Your task to perform on an android device: Open the calculator app Image 0: 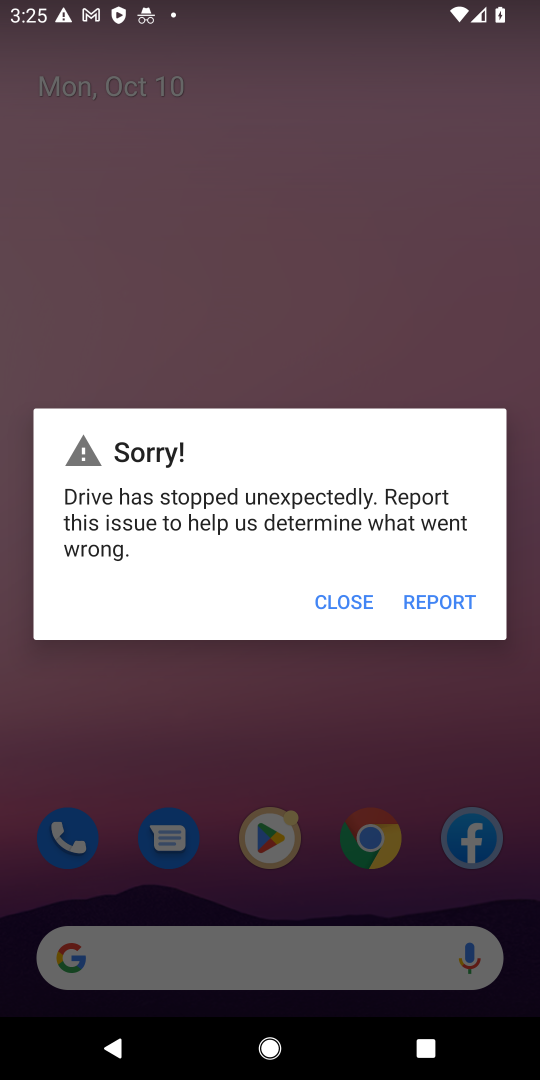
Step 0: click (348, 605)
Your task to perform on an android device: Open the calculator app Image 1: 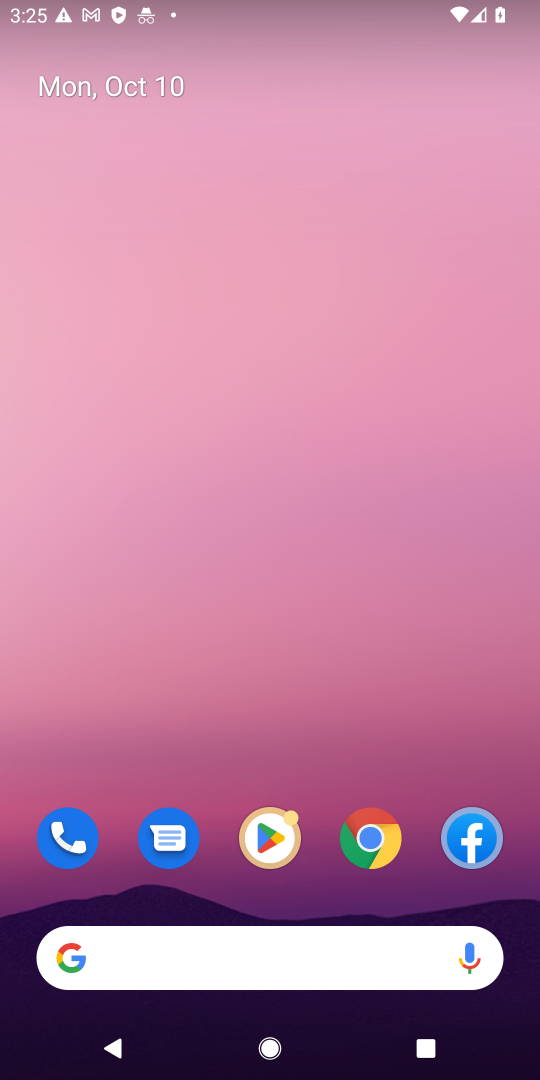
Step 1: drag from (227, 910) to (163, 25)
Your task to perform on an android device: Open the calculator app Image 2: 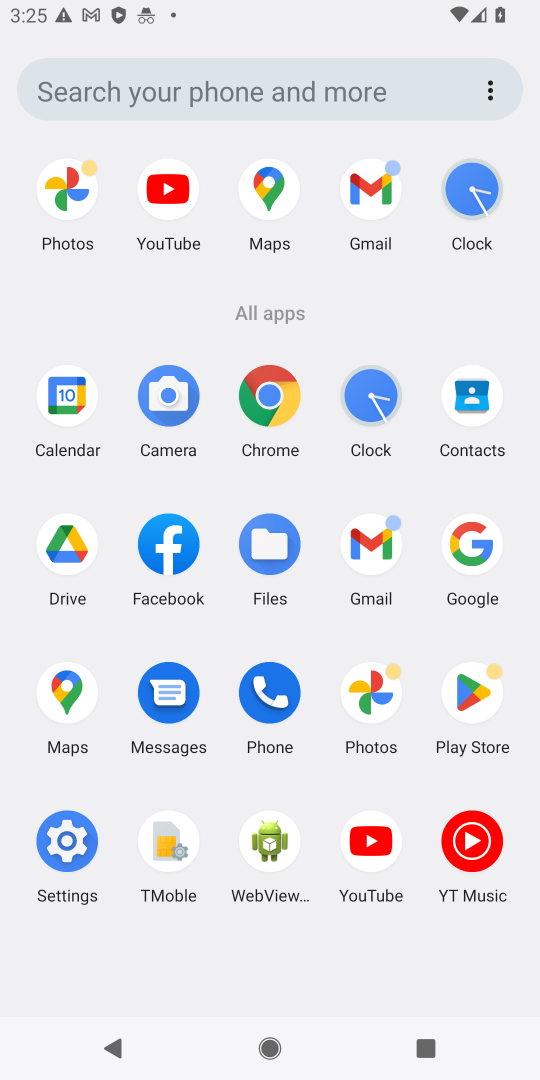
Step 2: click (470, 714)
Your task to perform on an android device: Open the calculator app Image 3: 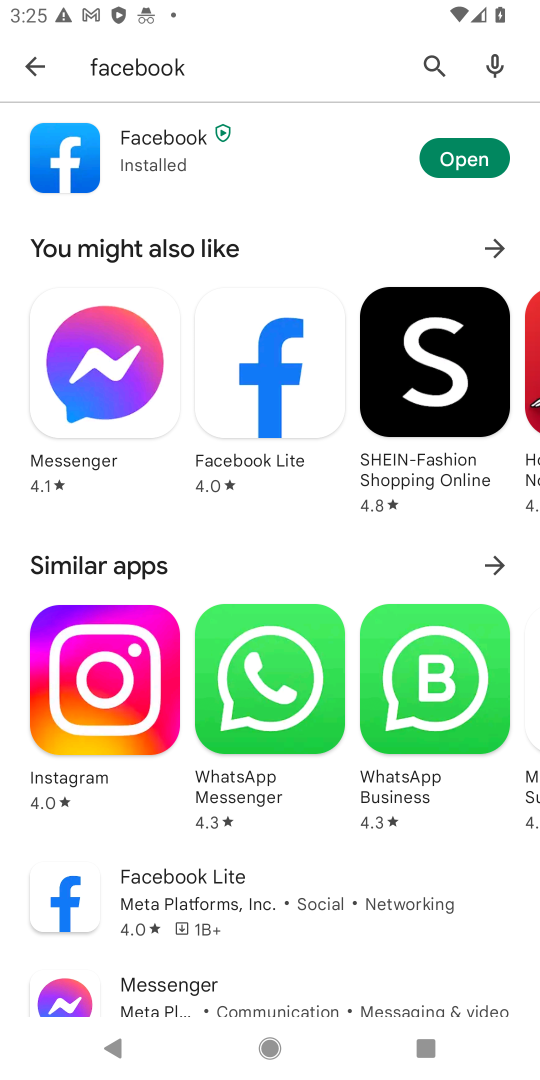
Step 3: click (166, 55)
Your task to perform on an android device: Open the calculator app Image 4: 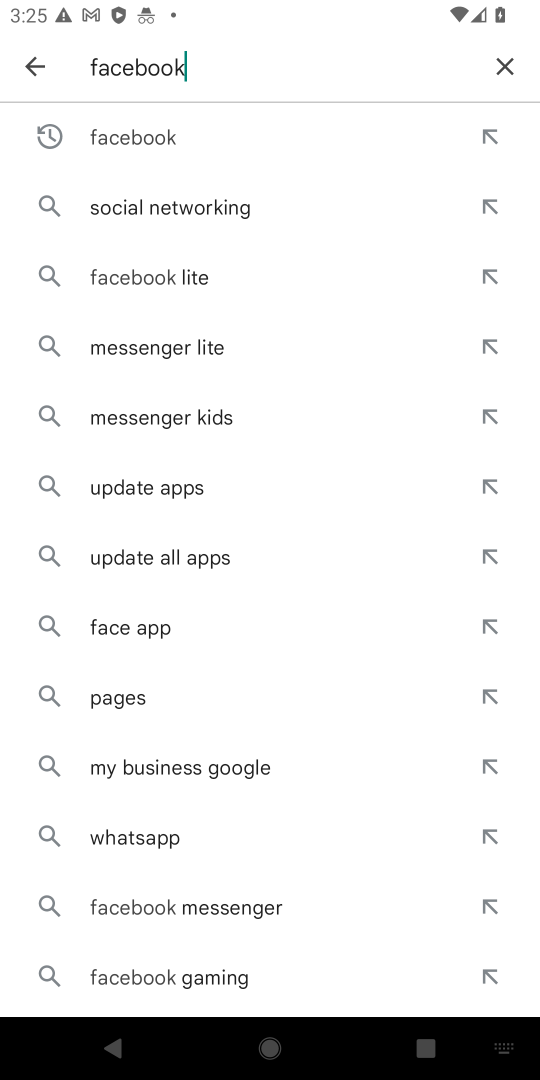
Step 4: click (514, 70)
Your task to perform on an android device: Open the calculator app Image 5: 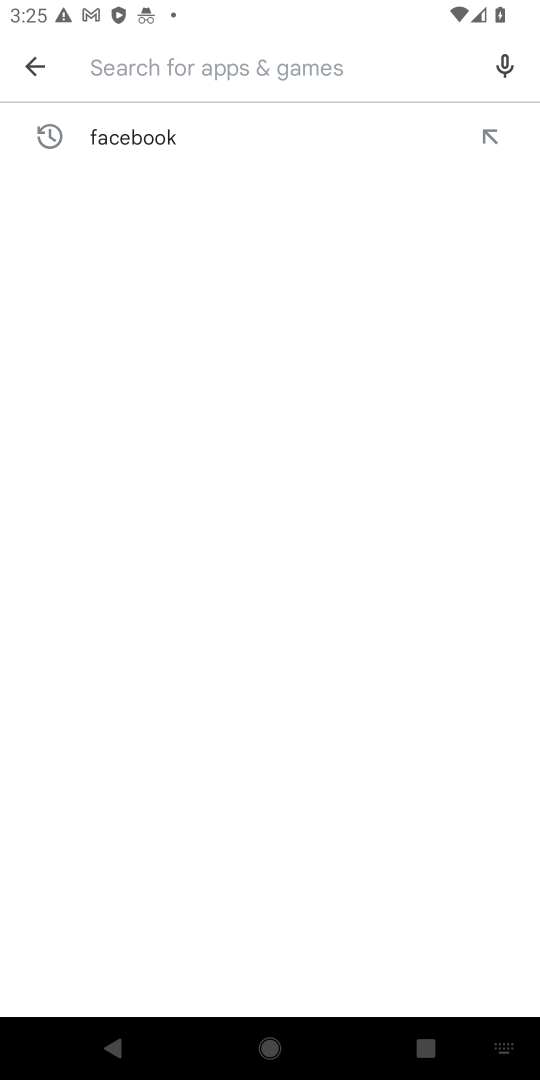
Step 5: type "calculator"
Your task to perform on an android device: Open the calculator app Image 6: 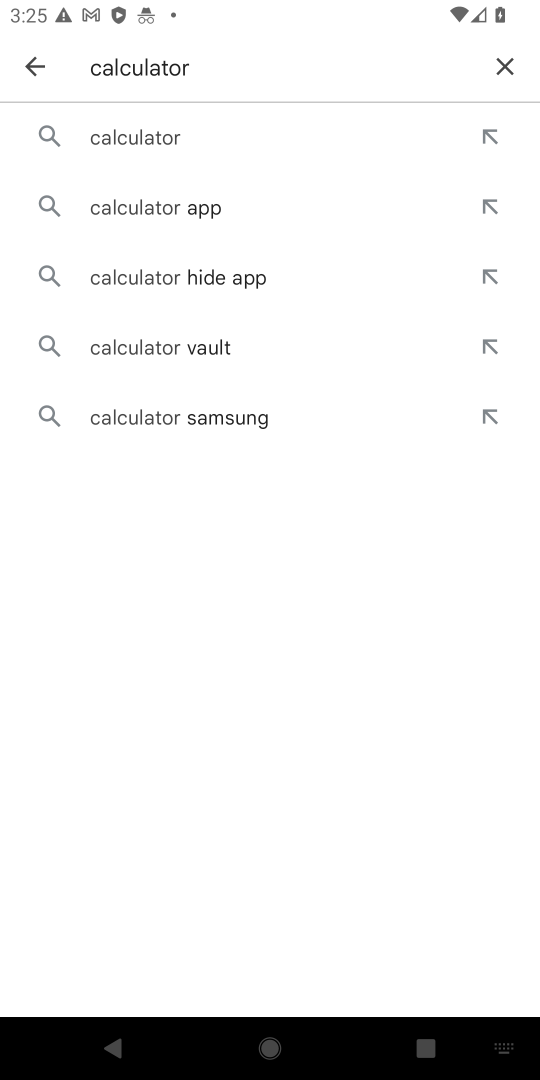
Step 6: click (249, 130)
Your task to perform on an android device: Open the calculator app Image 7: 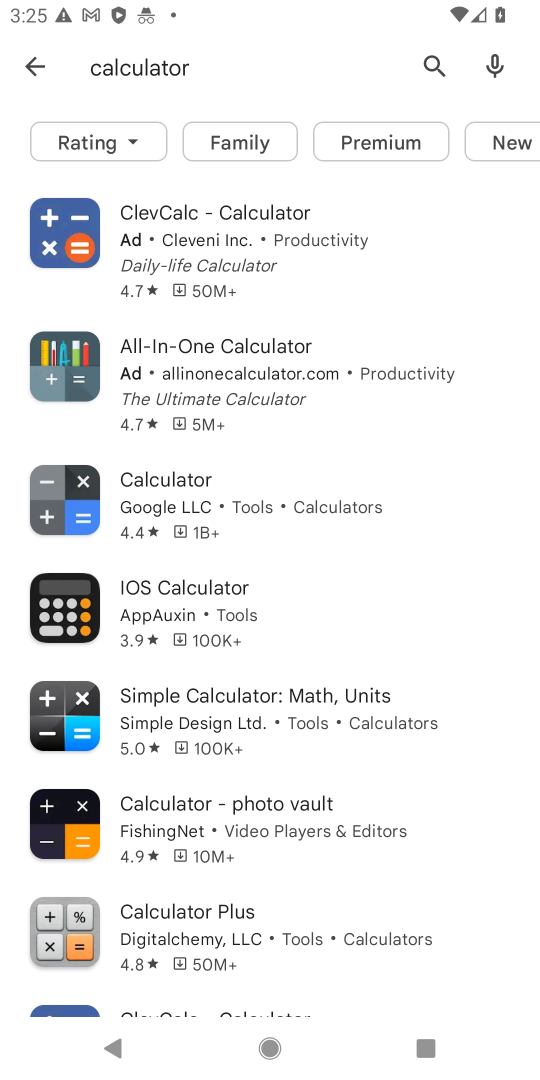
Step 7: task complete